Your task to perform on an android device: Show me the alarms in the clock app Image 0: 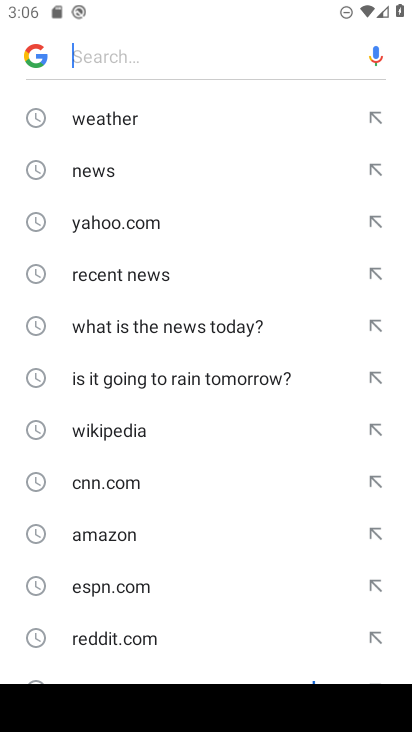
Step 0: press home button
Your task to perform on an android device: Show me the alarms in the clock app Image 1: 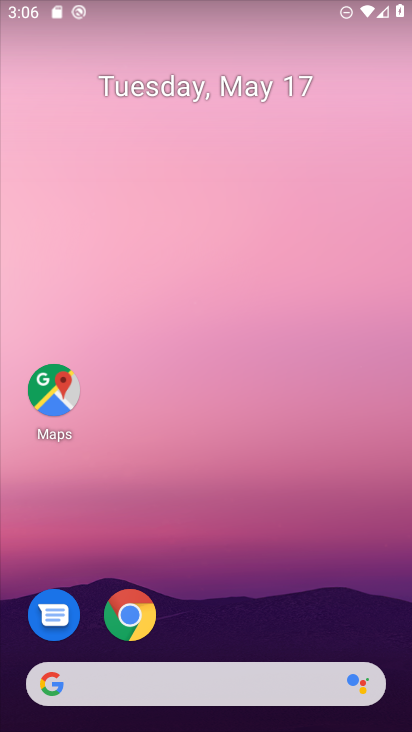
Step 1: drag from (226, 724) to (225, 146)
Your task to perform on an android device: Show me the alarms in the clock app Image 2: 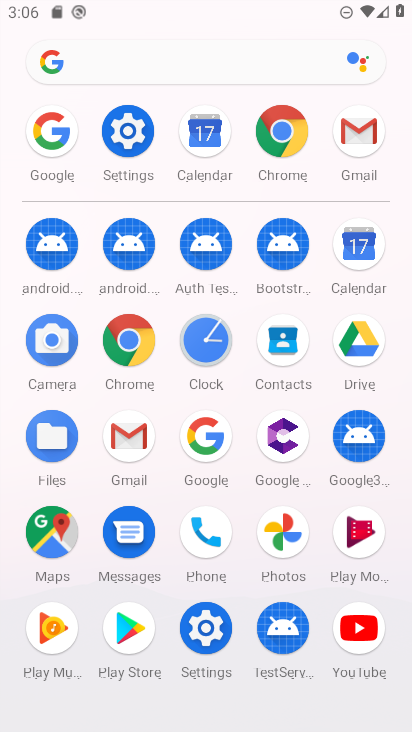
Step 2: click (206, 344)
Your task to perform on an android device: Show me the alarms in the clock app Image 3: 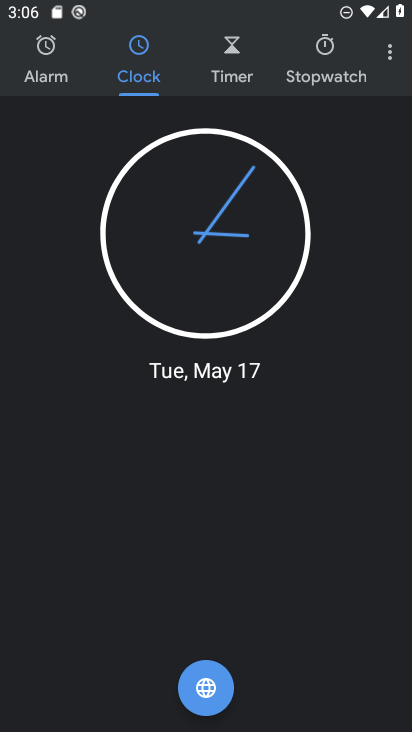
Step 3: click (46, 60)
Your task to perform on an android device: Show me the alarms in the clock app Image 4: 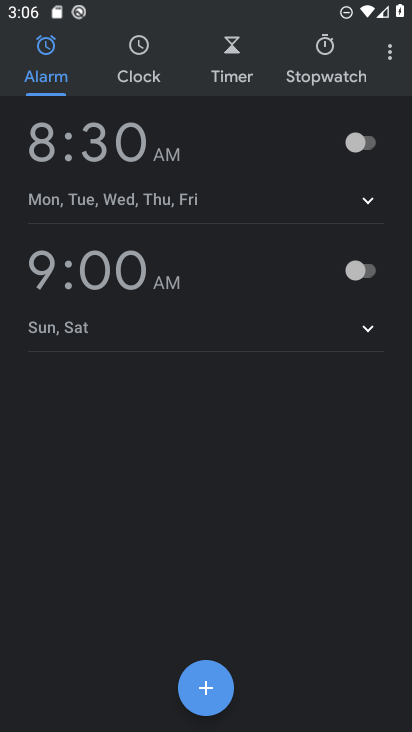
Step 4: task complete